Your task to perform on an android device: empty trash in google photos Image 0: 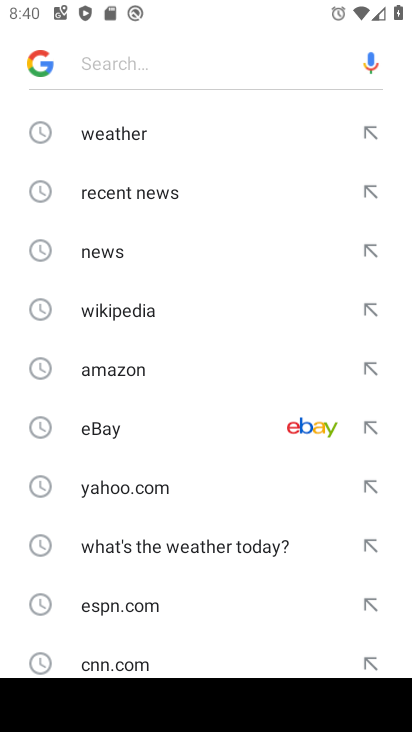
Step 0: press home button
Your task to perform on an android device: empty trash in google photos Image 1: 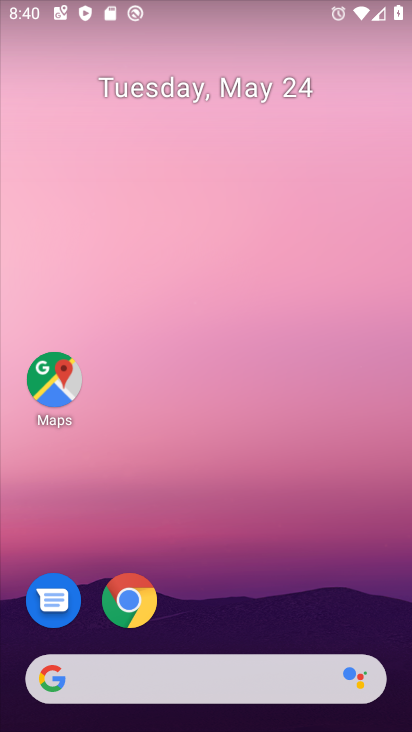
Step 1: drag from (218, 726) to (194, 257)
Your task to perform on an android device: empty trash in google photos Image 2: 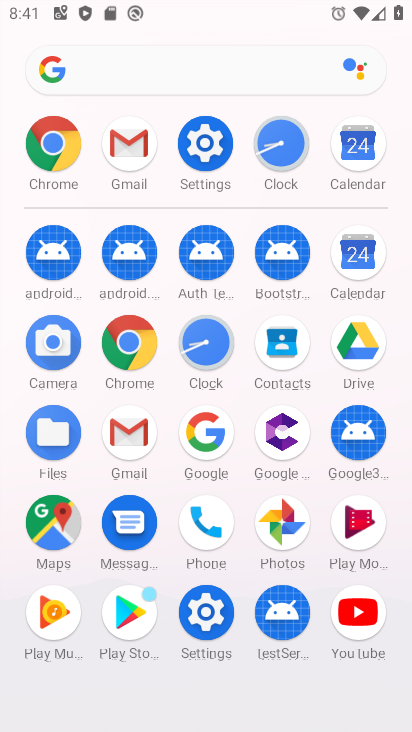
Step 2: click (283, 522)
Your task to perform on an android device: empty trash in google photos Image 3: 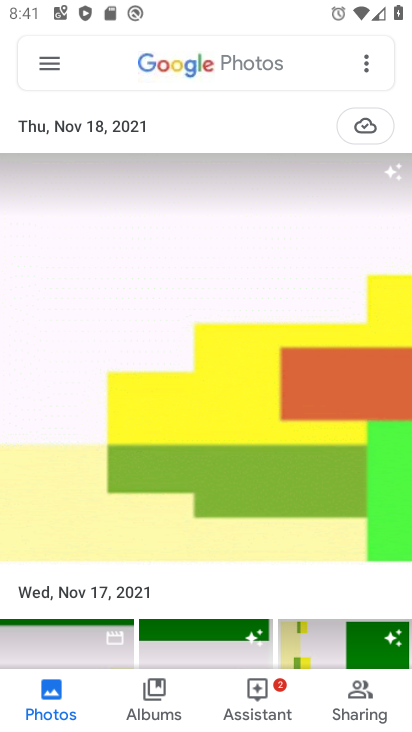
Step 3: click (50, 61)
Your task to perform on an android device: empty trash in google photos Image 4: 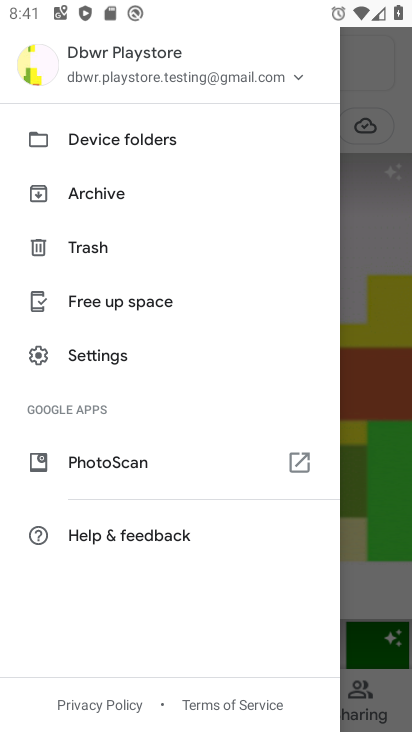
Step 4: click (77, 241)
Your task to perform on an android device: empty trash in google photos Image 5: 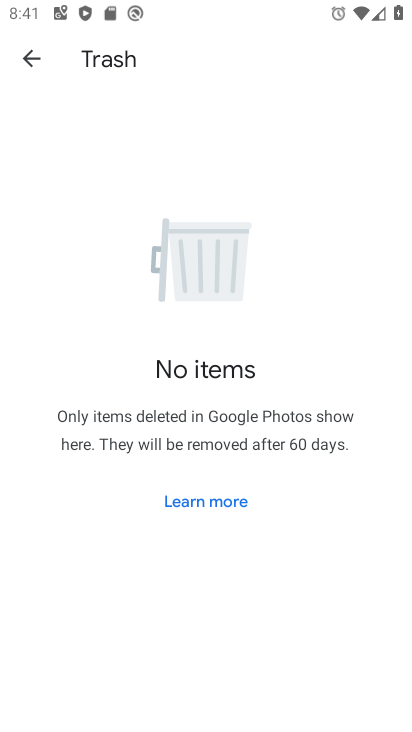
Step 5: task complete